Your task to perform on an android device: Go to Amazon Image 0: 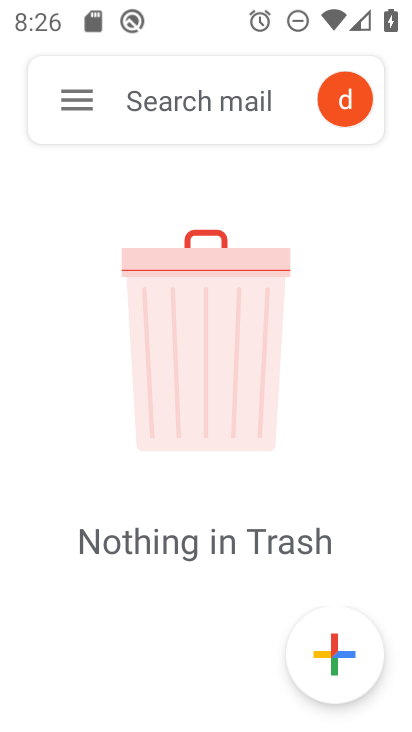
Step 0: press home button
Your task to perform on an android device: Go to Amazon Image 1: 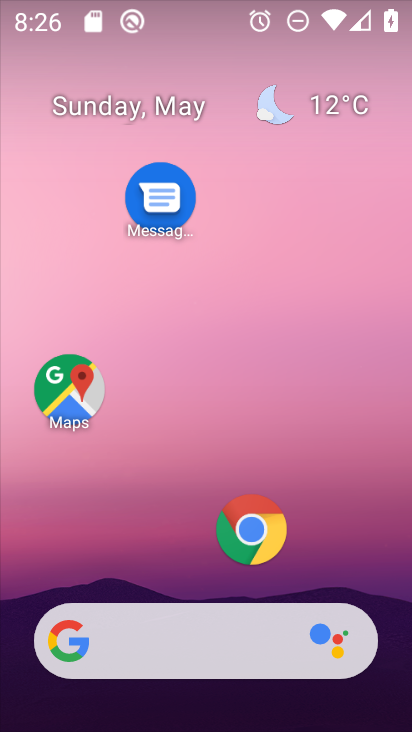
Step 1: click (248, 529)
Your task to perform on an android device: Go to Amazon Image 2: 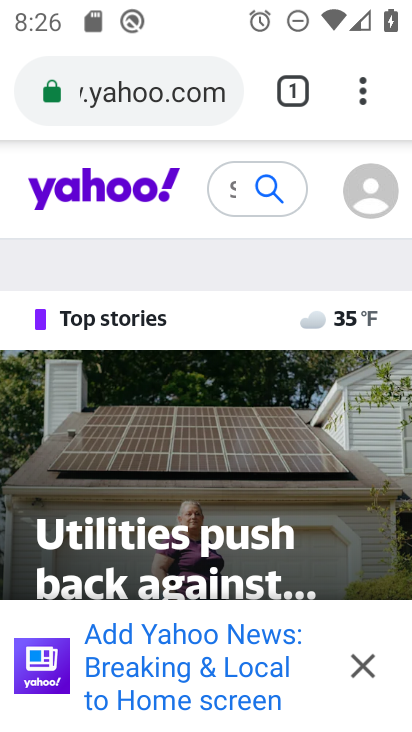
Step 2: press back button
Your task to perform on an android device: Go to Amazon Image 3: 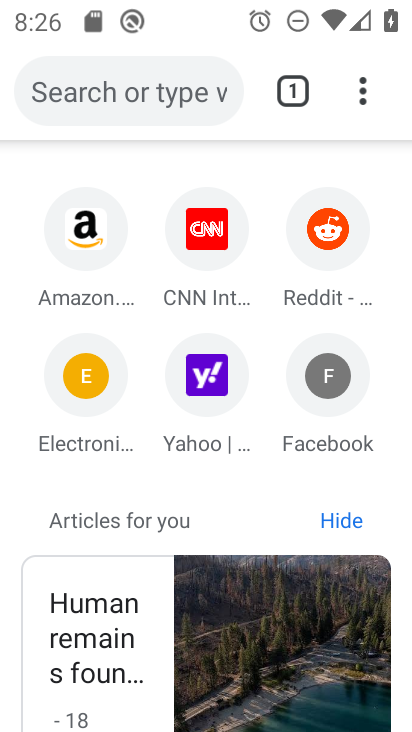
Step 3: click (82, 226)
Your task to perform on an android device: Go to Amazon Image 4: 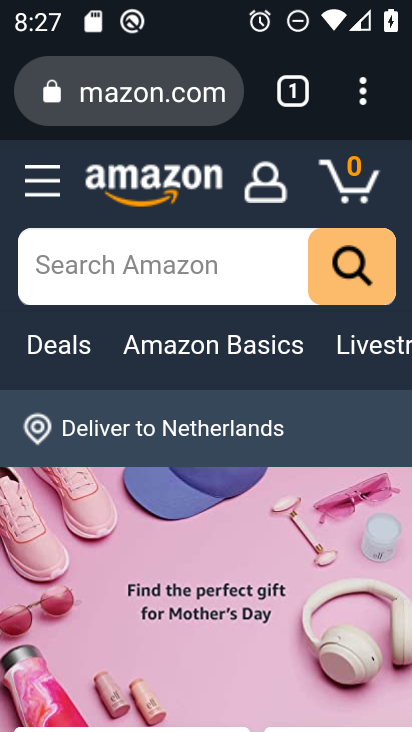
Step 4: task complete